Your task to perform on an android device: Go to eBay Image 0: 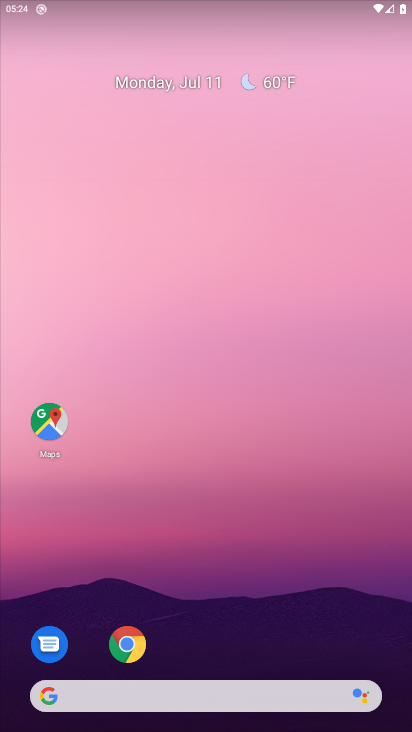
Step 0: click (134, 641)
Your task to perform on an android device: Go to eBay Image 1: 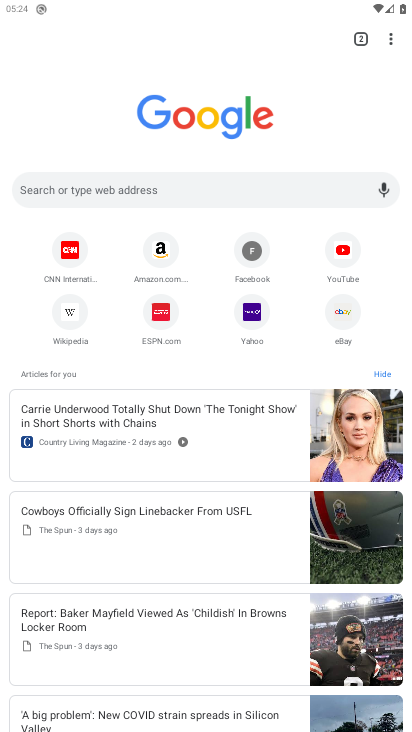
Step 1: click (339, 310)
Your task to perform on an android device: Go to eBay Image 2: 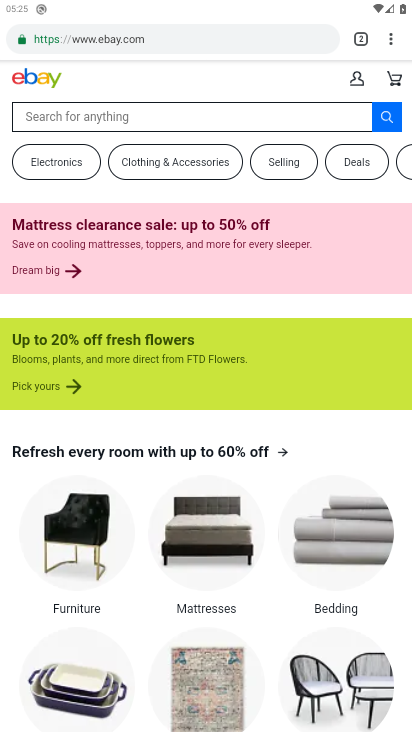
Step 2: task complete